Your task to perform on an android device: make emails show in primary in the gmail app Image 0: 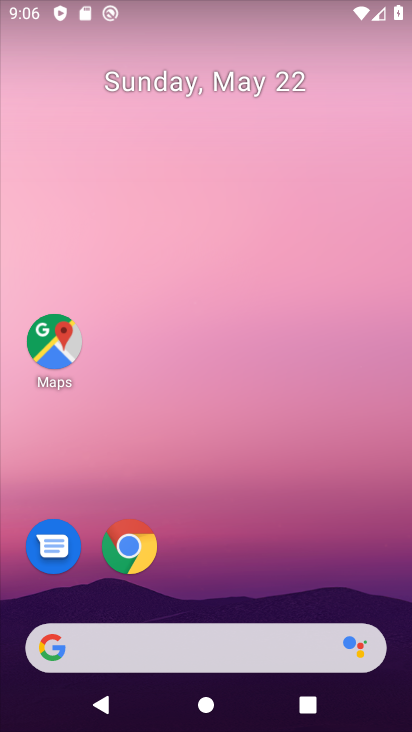
Step 0: click (295, 12)
Your task to perform on an android device: make emails show in primary in the gmail app Image 1: 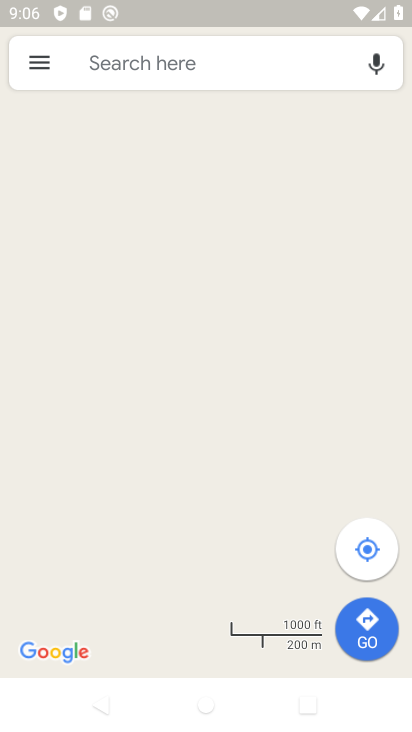
Step 1: press home button
Your task to perform on an android device: make emails show in primary in the gmail app Image 2: 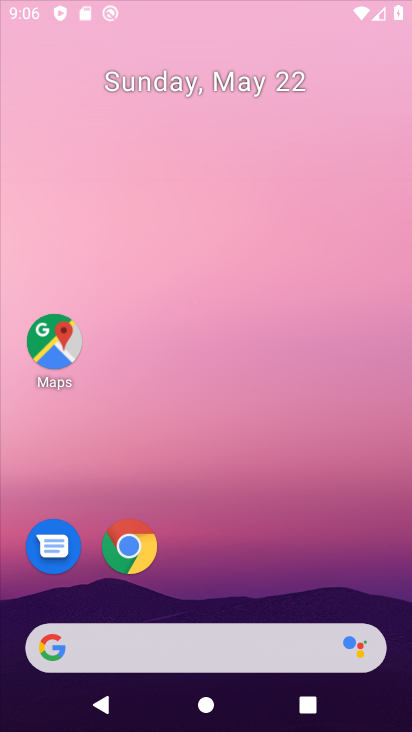
Step 2: drag from (187, 560) to (170, 16)
Your task to perform on an android device: make emails show in primary in the gmail app Image 3: 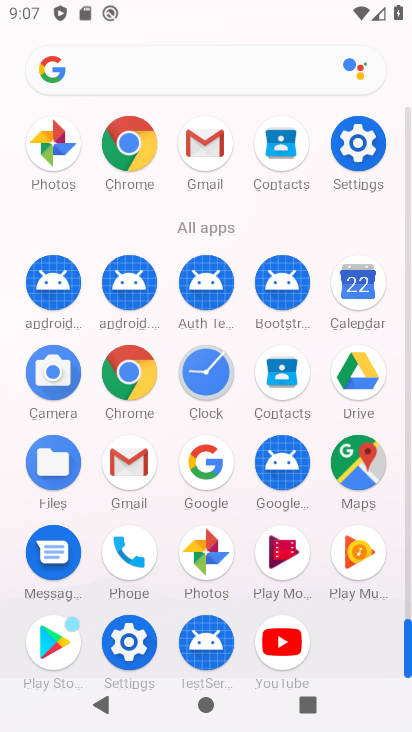
Step 3: click (128, 441)
Your task to perform on an android device: make emails show in primary in the gmail app Image 4: 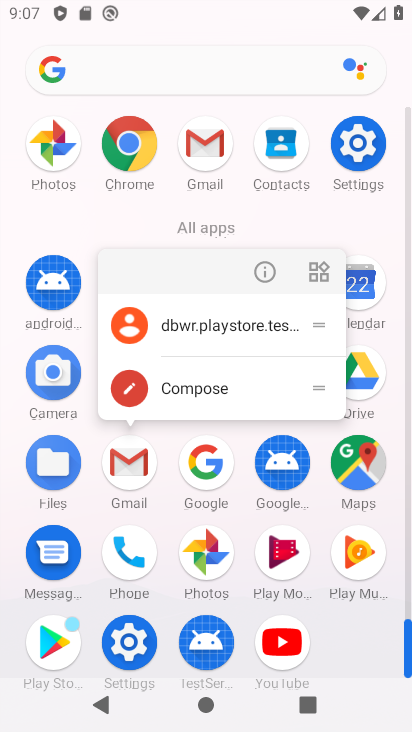
Step 4: click (233, 336)
Your task to perform on an android device: make emails show in primary in the gmail app Image 5: 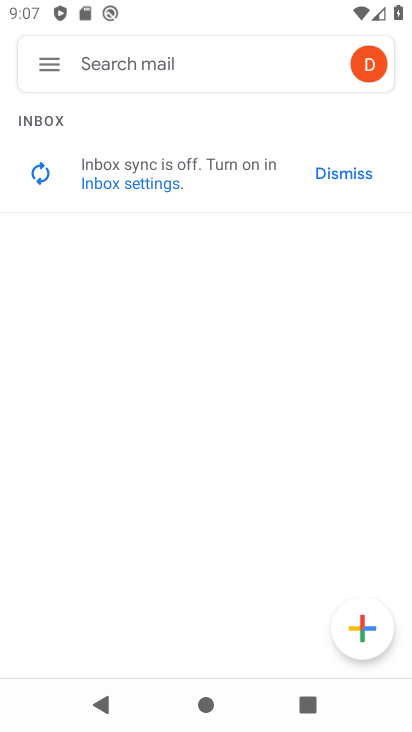
Step 5: press home button
Your task to perform on an android device: make emails show in primary in the gmail app Image 6: 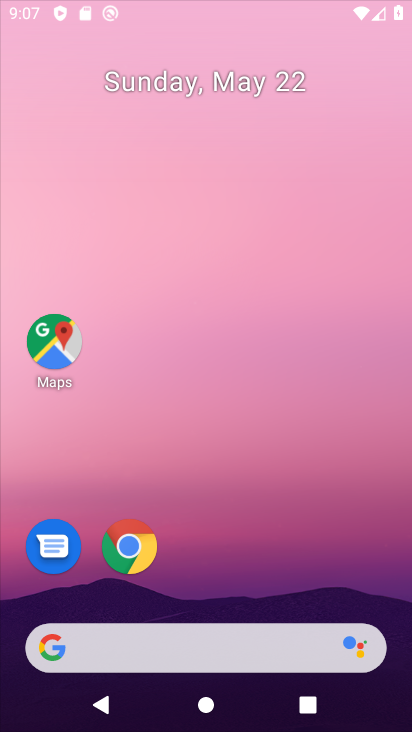
Step 6: drag from (171, 585) to (306, 68)
Your task to perform on an android device: make emails show in primary in the gmail app Image 7: 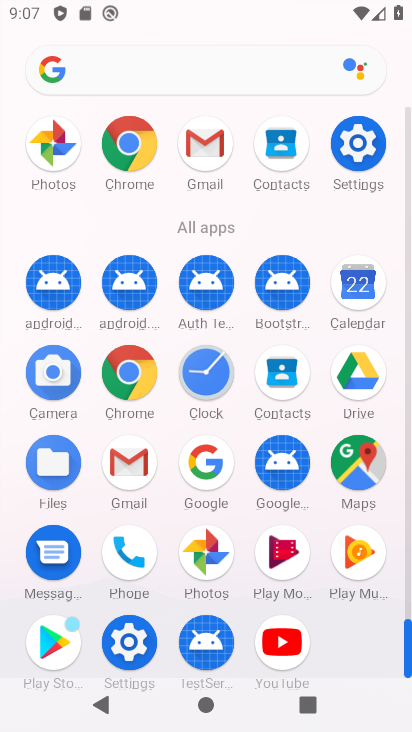
Step 7: click (135, 462)
Your task to perform on an android device: make emails show in primary in the gmail app Image 8: 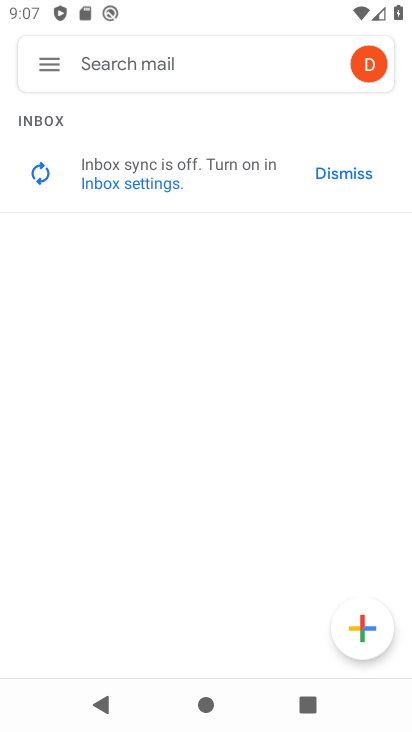
Step 8: click (47, 63)
Your task to perform on an android device: make emails show in primary in the gmail app Image 9: 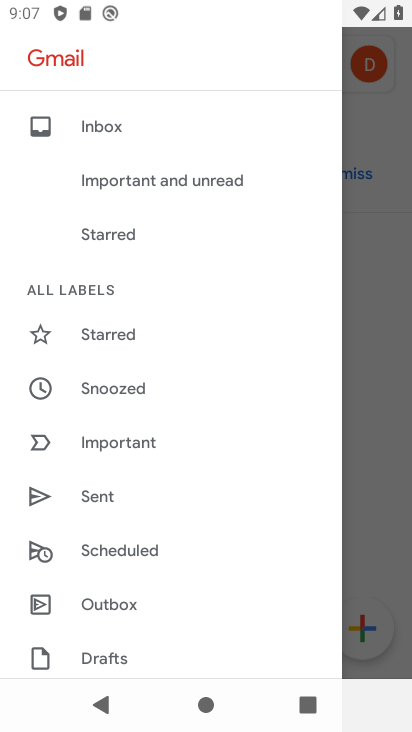
Step 9: click (124, 130)
Your task to perform on an android device: make emails show in primary in the gmail app Image 10: 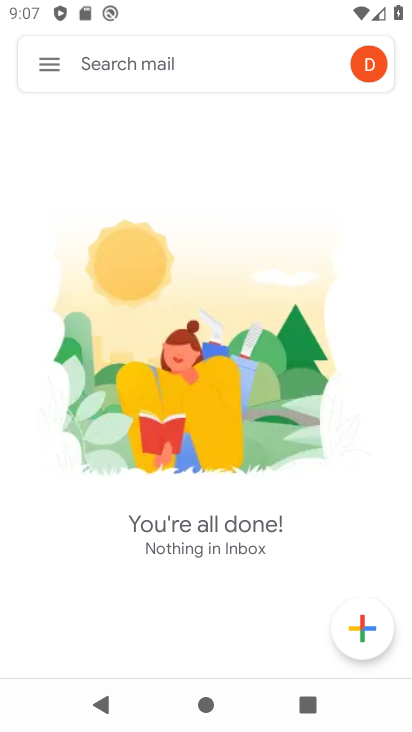
Step 10: task complete